Your task to perform on an android device: Show me popular games on the Play Store Image 0: 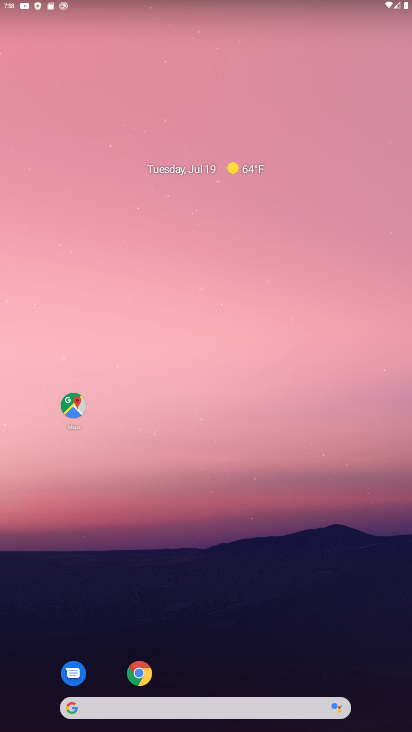
Step 0: drag from (140, 728) to (285, 76)
Your task to perform on an android device: Show me popular games on the Play Store Image 1: 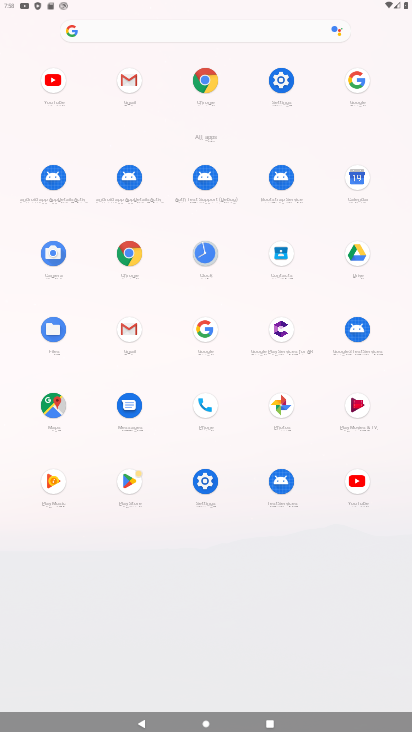
Step 1: click (121, 481)
Your task to perform on an android device: Show me popular games on the Play Store Image 2: 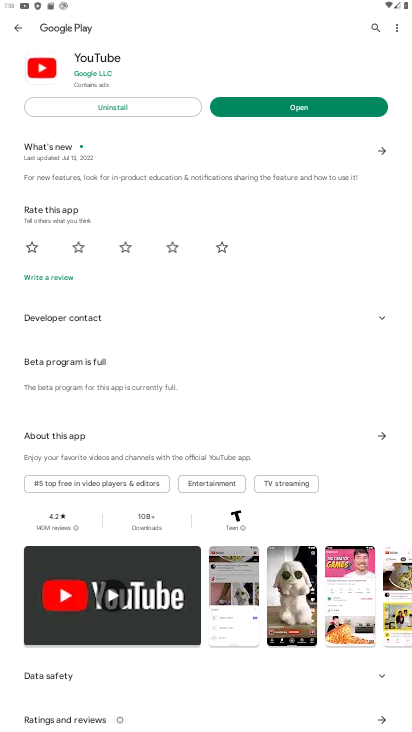
Step 2: click (16, 27)
Your task to perform on an android device: Show me popular games on the Play Store Image 3: 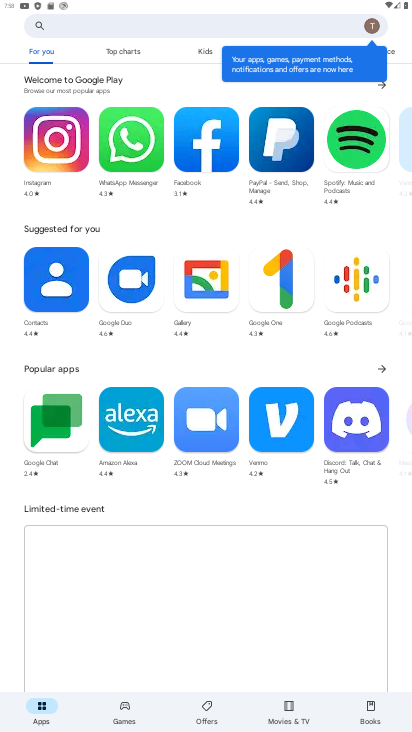
Step 3: click (125, 707)
Your task to perform on an android device: Show me popular games on the Play Store Image 4: 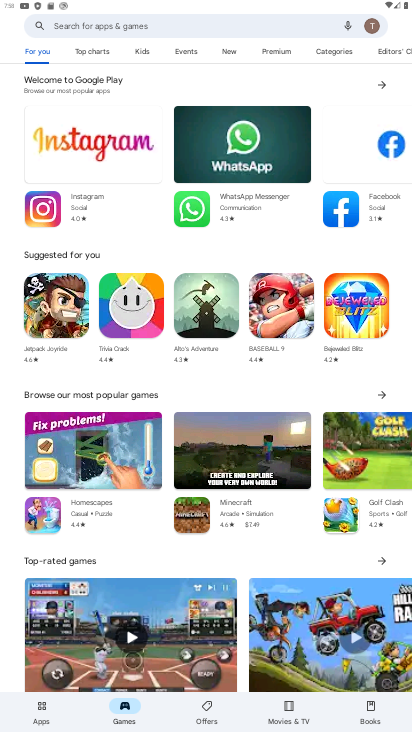
Step 4: task complete